Your task to perform on an android device: turn off wifi Image 0: 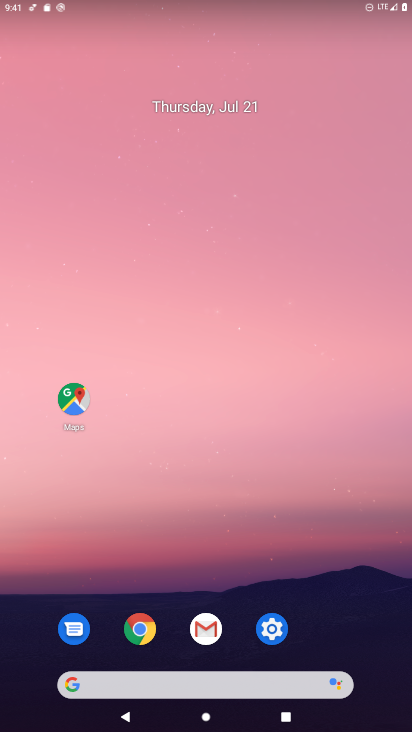
Step 0: click (268, 631)
Your task to perform on an android device: turn off wifi Image 1: 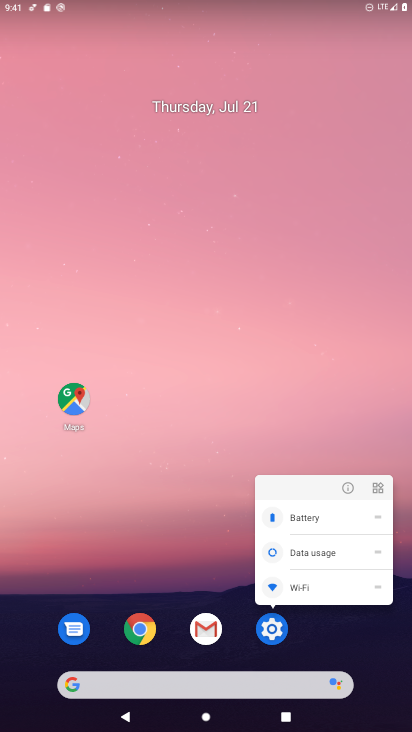
Step 1: click (274, 626)
Your task to perform on an android device: turn off wifi Image 2: 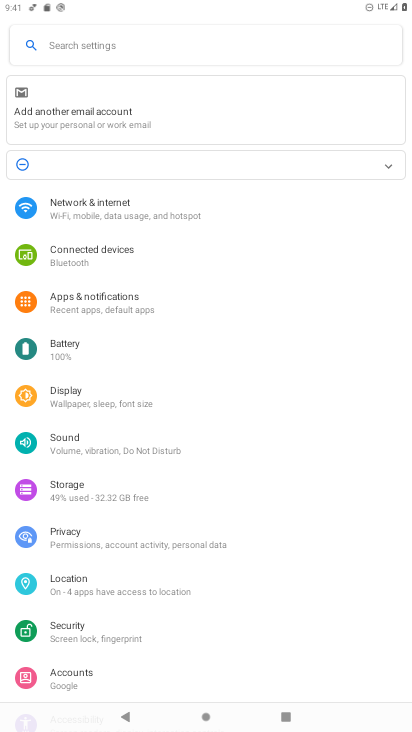
Step 2: click (167, 219)
Your task to perform on an android device: turn off wifi Image 3: 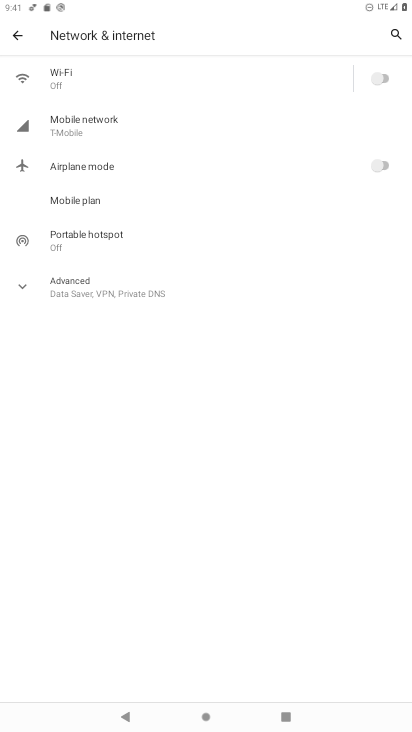
Step 3: click (128, 89)
Your task to perform on an android device: turn off wifi Image 4: 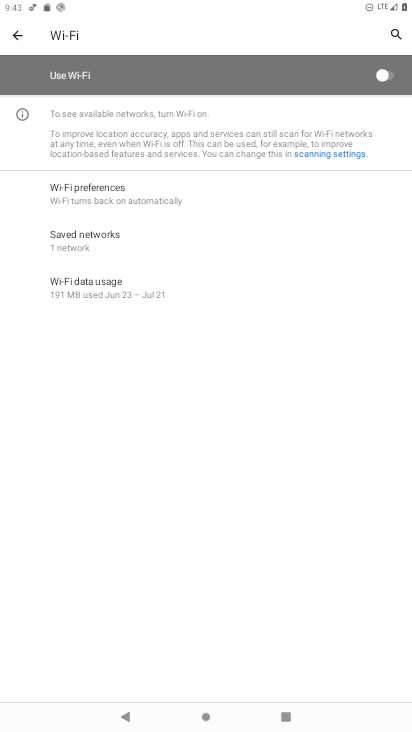
Step 4: task complete